Your task to perform on an android device: Open the phone app and click the voicemail tab. Image 0: 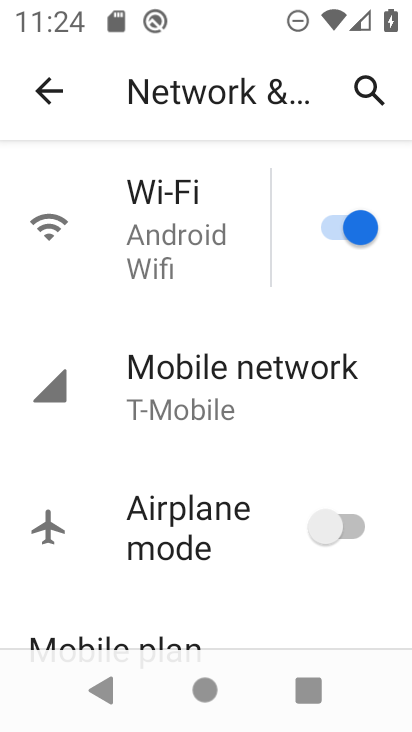
Step 0: press home button
Your task to perform on an android device: Open the phone app and click the voicemail tab. Image 1: 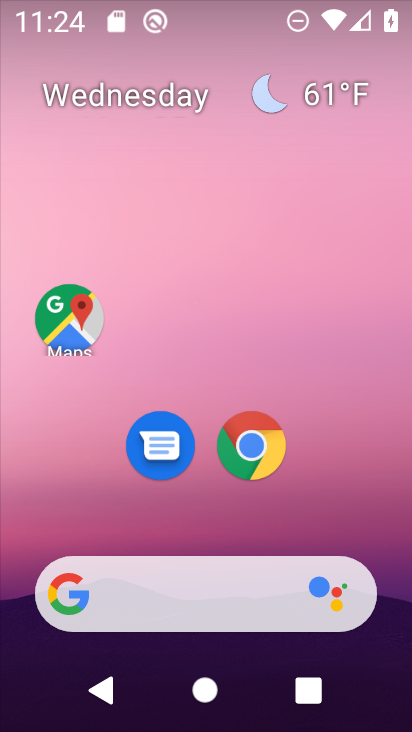
Step 1: drag from (376, 500) to (375, 208)
Your task to perform on an android device: Open the phone app and click the voicemail tab. Image 2: 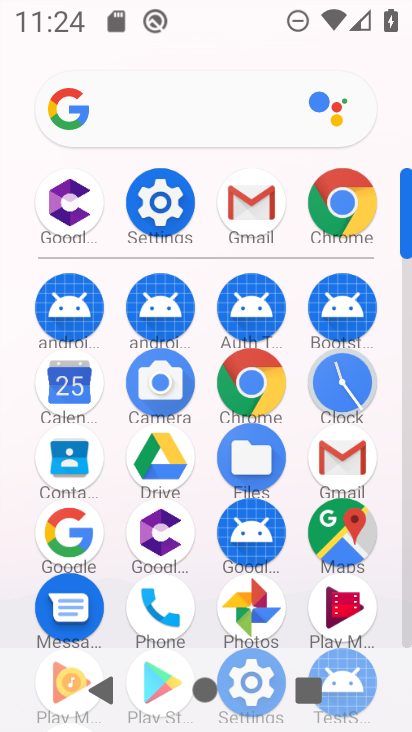
Step 2: click (158, 621)
Your task to perform on an android device: Open the phone app and click the voicemail tab. Image 3: 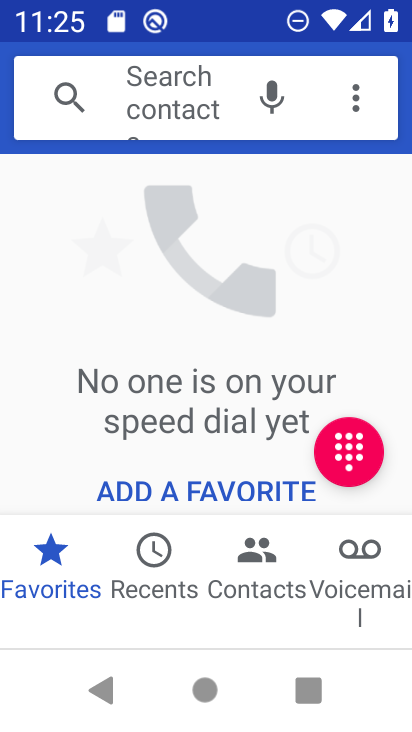
Step 3: click (373, 590)
Your task to perform on an android device: Open the phone app and click the voicemail tab. Image 4: 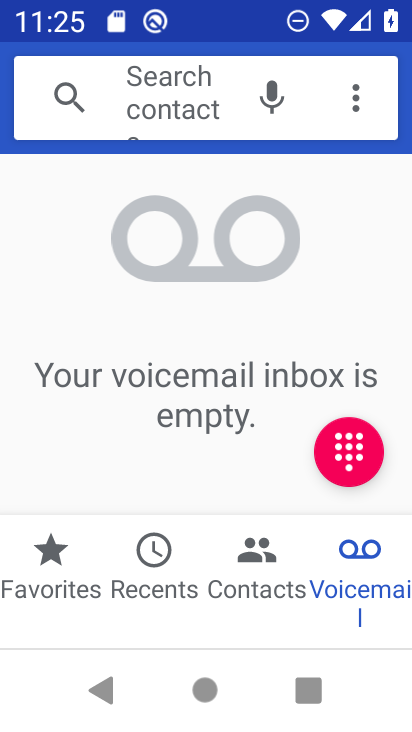
Step 4: task complete